Your task to perform on an android device: Go to Google Image 0: 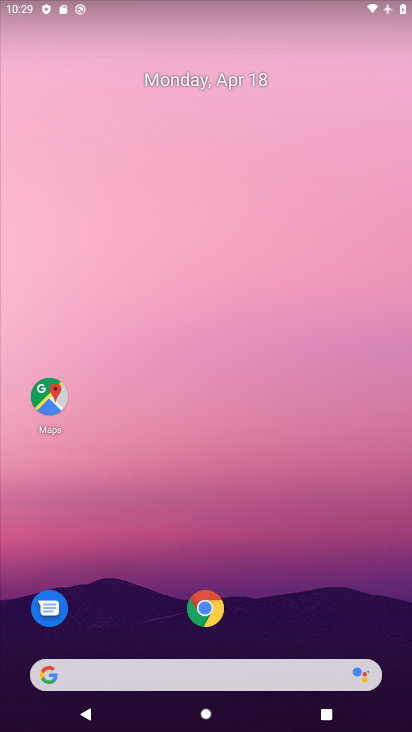
Step 0: click (205, 618)
Your task to perform on an android device: Go to Google Image 1: 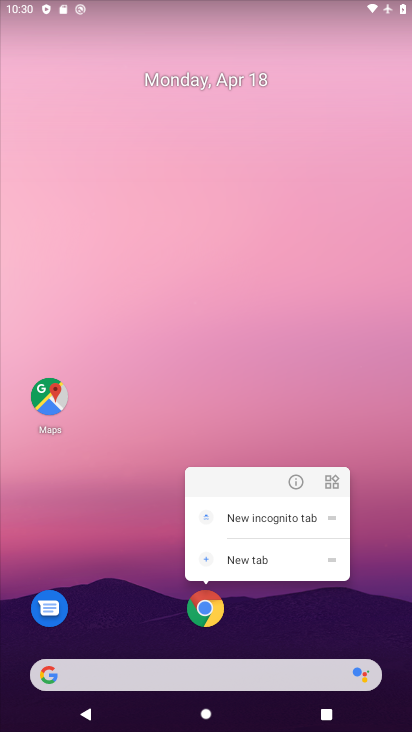
Step 1: click (204, 611)
Your task to perform on an android device: Go to Google Image 2: 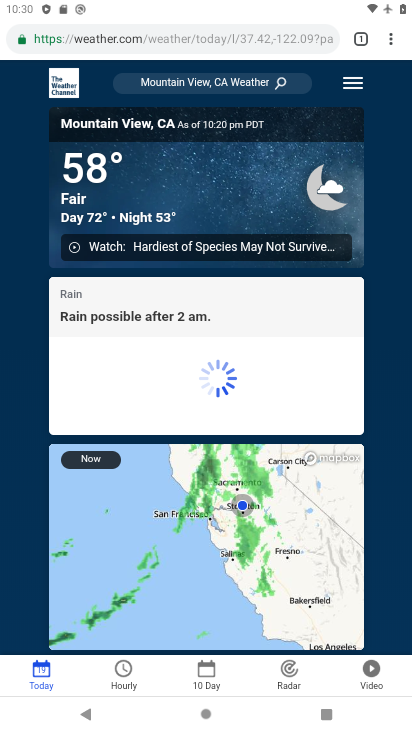
Step 2: click (356, 40)
Your task to perform on an android device: Go to Google Image 3: 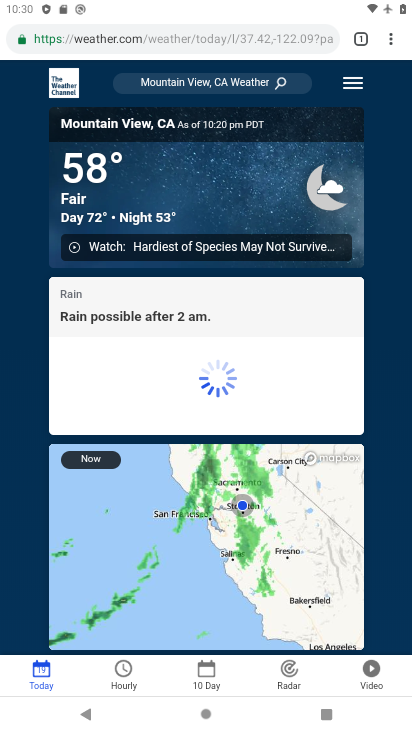
Step 3: click (367, 40)
Your task to perform on an android device: Go to Google Image 4: 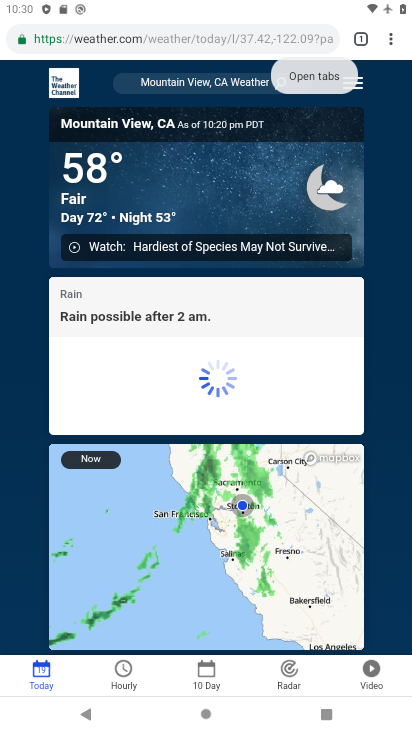
Step 4: click (390, 39)
Your task to perform on an android device: Go to Google Image 5: 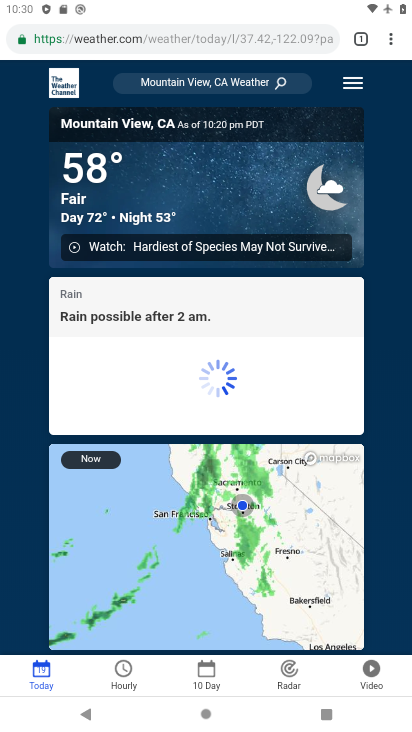
Step 5: task complete